Your task to perform on an android device: Set the phone to "Do not disturb". Image 0: 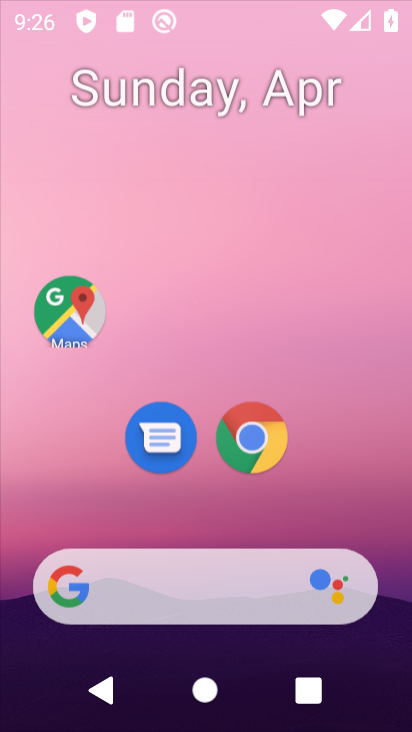
Step 0: click (237, 11)
Your task to perform on an android device: Set the phone to "Do not disturb". Image 1: 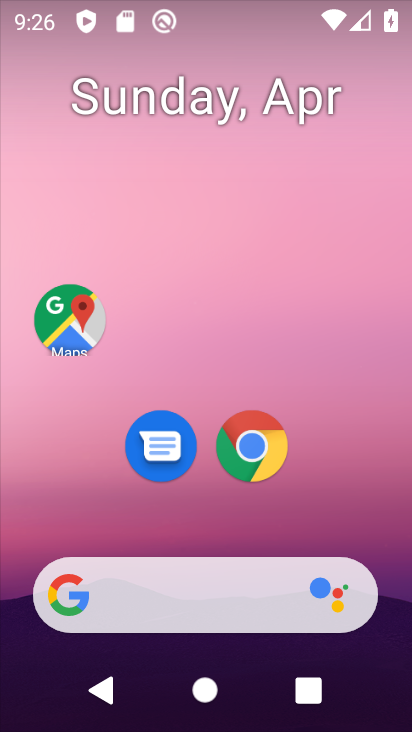
Step 1: drag from (206, 487) to (248, 267)
Your task to perform on an android device: Set the phone to "Do not disturb". Image 2: 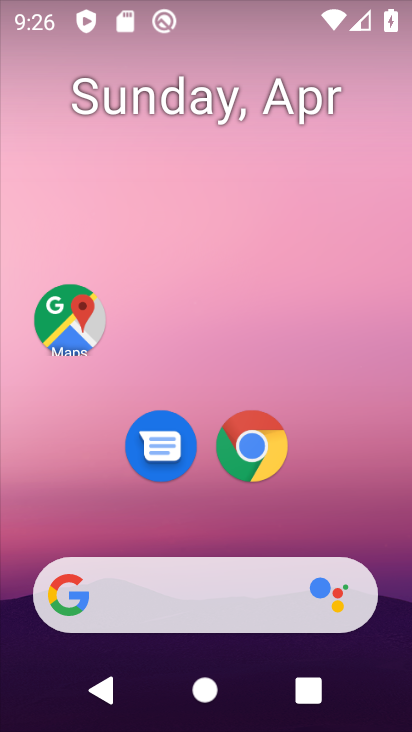
Step 2: drag from (219, 519) to (279, 210)
Your task to perform on an android device: Set the phone to "Do not disturb". Image 3: 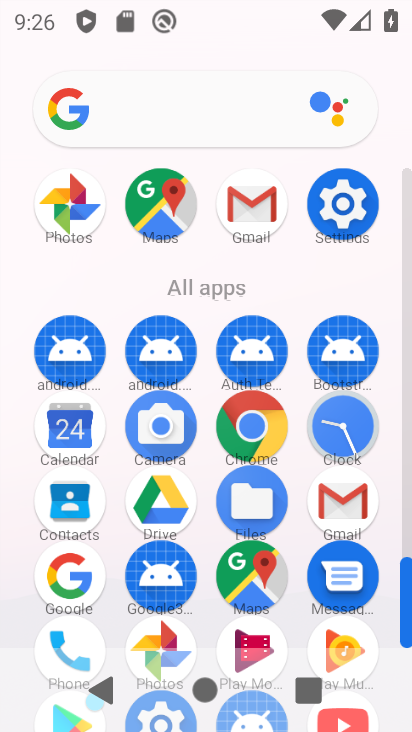
Step 3: click (346, 215)
Your task to perform on an android device: Set the phone to "Do not disturb". Image 4: 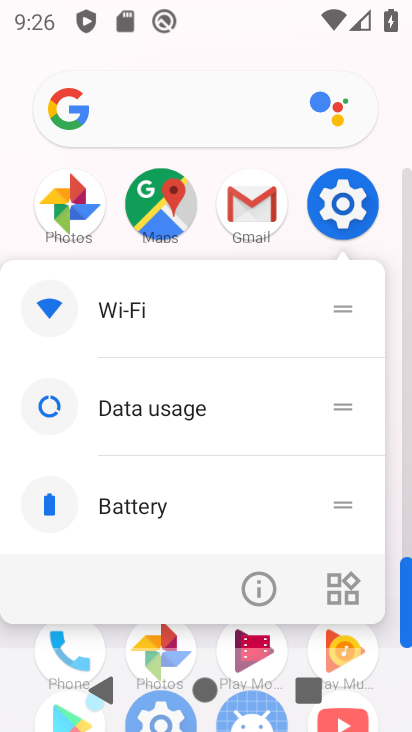
Step 4: click (265, 590)
Your task to perform on an android device: Set the phone to "Do not disturb". Image 5: 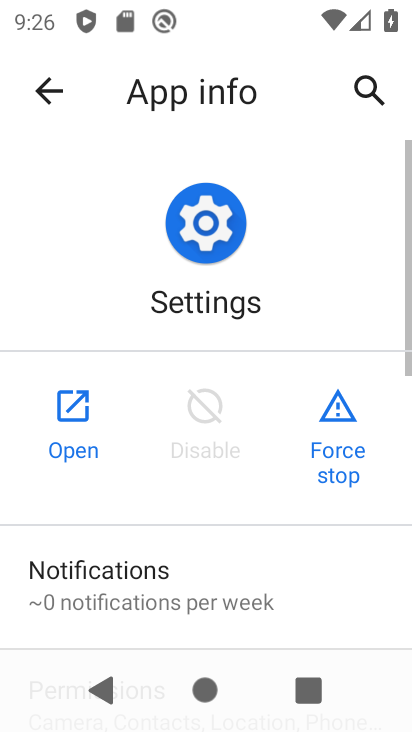
Step 5: click (81, 435)
Your task to perform on an android device: Set the phone to "Do not disturb". Image 6: 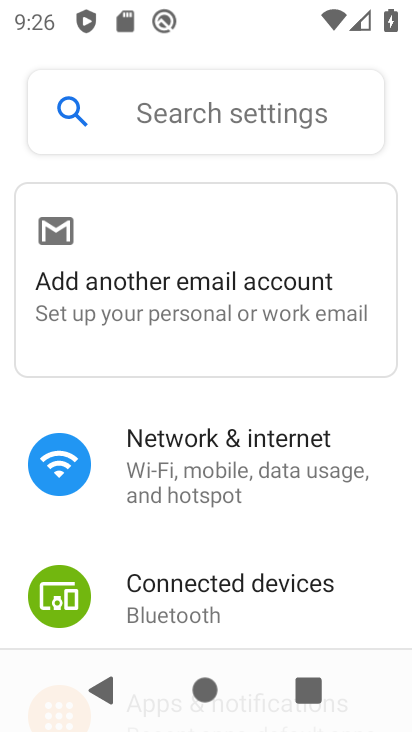
Step 6: drag from (235, 588) to (318, 255)
Your task to perform on an android device: Set the phone to "Do not disturb". Image 7: 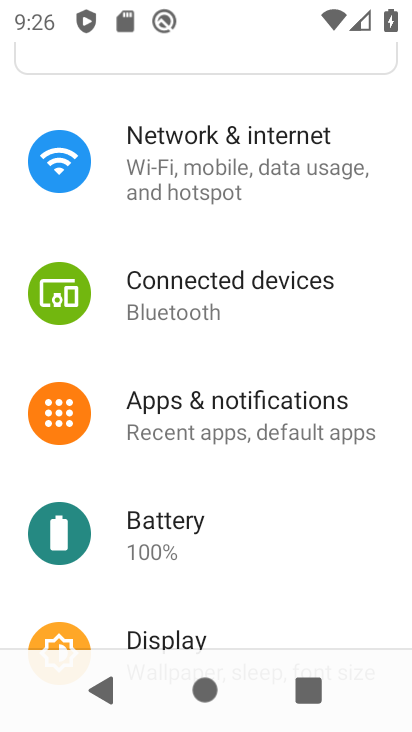
Step 7: click (194, 402)
Your task to perform on an android device: Set the phone to "Do not disturb". Image 8: 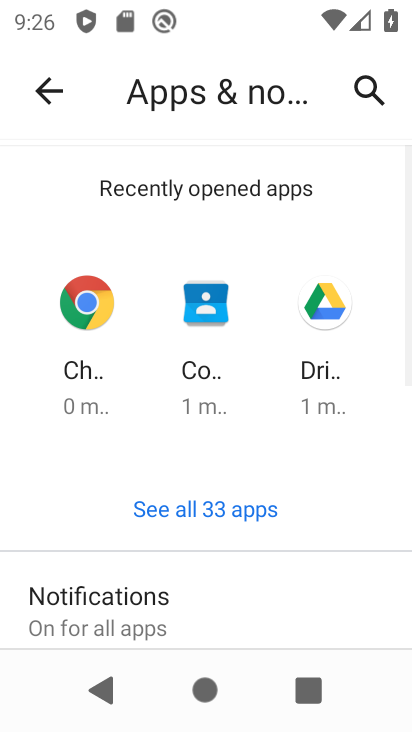
Step 8: drag from (248, 630) to (302, 293)
Your task to perform on an android device: Set the phone to "Do not disturb". Image 9: 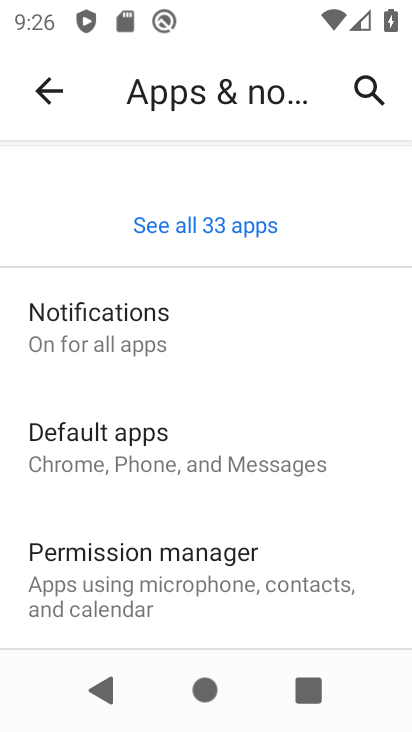
Step 9: click (174, 330)
Your task to perform on an android device: Set the phone to "Do not disturb". Image 10: 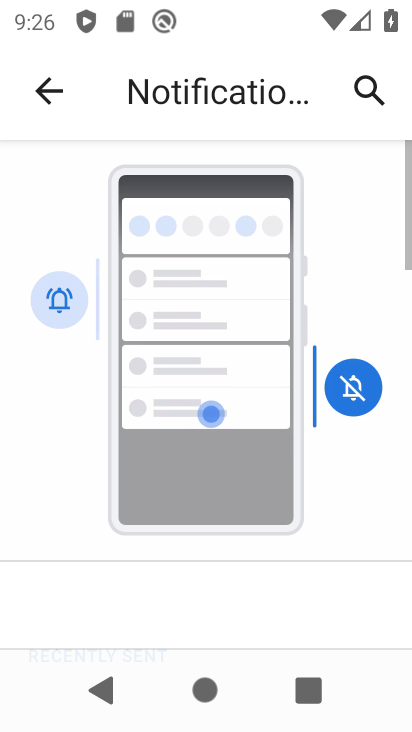
Step 10: drag from (207, 603) to (373, 73)
Your task to perform on an android device: Set the phone to "Do not disturb". Image 11: 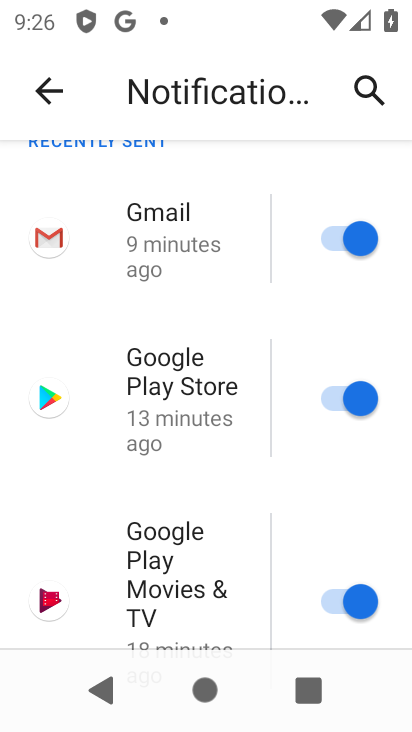
Step 11: drag from (201, 556) to (269, 100)
Your task to perform on an android device: Set the phone to "Do not disturb". Image 12: 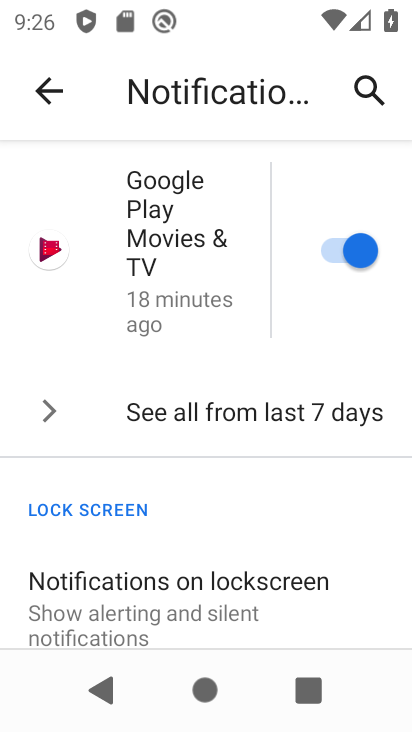
Step 12: drag from (190, 519) to (266, 61)
Your task to perform on an android device: Set the phone to "Do not disturb". Image 13: 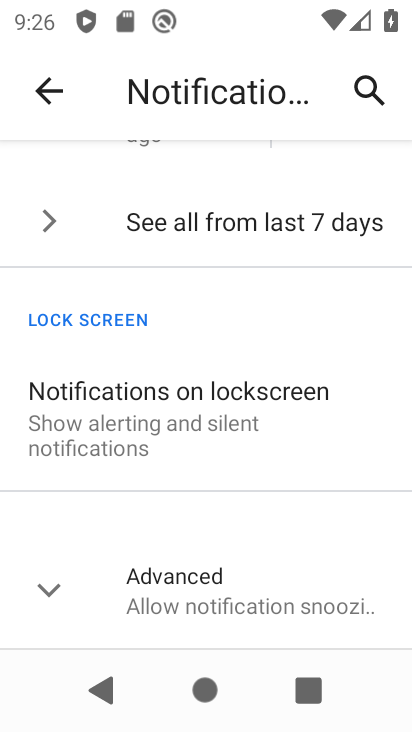
Step 13: click (185, 591)
Your task to perform on an android device: Set the phone to "Do not disturb". Image 14: 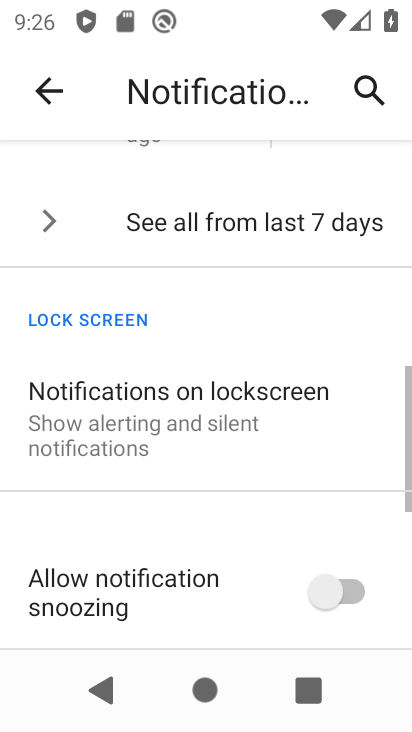
Step 14: drag from (237, 501) to (347, 159)
Your task to perform on an android device: Set the phone to "Do not disturb". Image 15: 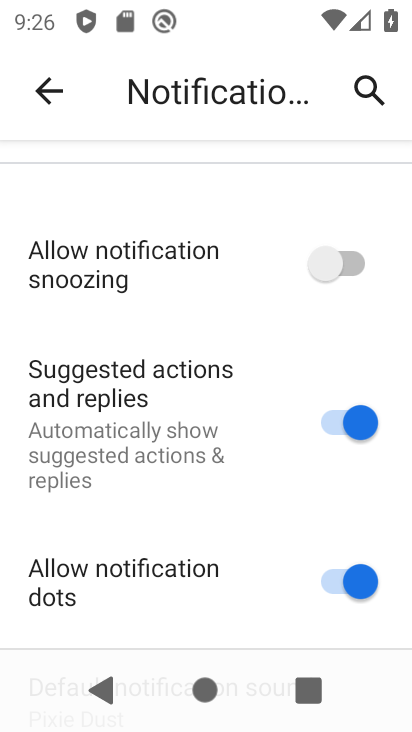
Step 15: drag from (222, 569) to (221, 121)
Your task to perform on an android device: Set the phone to "Do not disturb". Image 16: 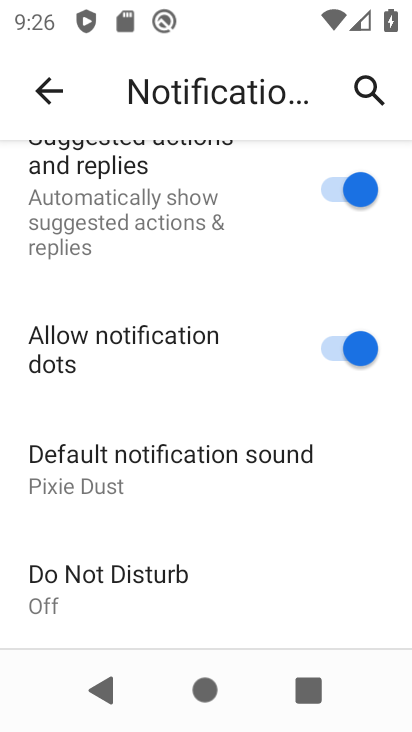
Step 16: drag from (187, 502) to (218, 207)
Your task to perform on an android device: Set the phone to "Do not disturb". Image 17: 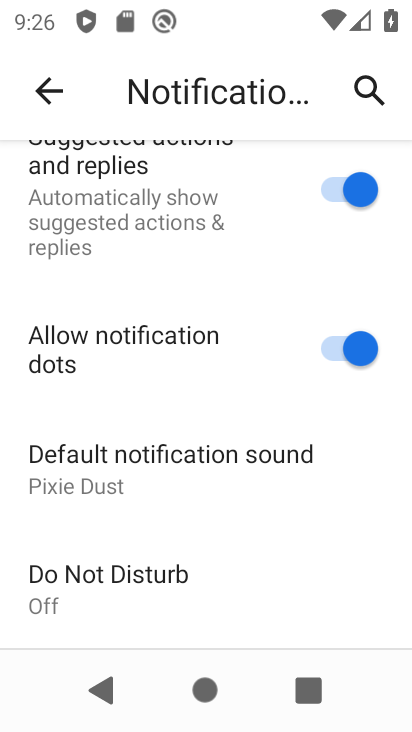
Step 17: click (141, 593)
Your task to perform on an android device: Set the phone to "Do not disturb". Image 18: 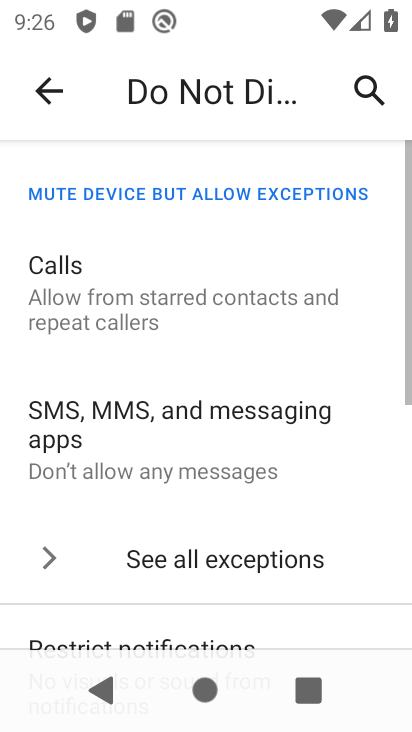
Step 18: drag from (203, 555) to (325, 100)
Your task to perform on an android device: Set the phone to "Do not disturb". Image 19: 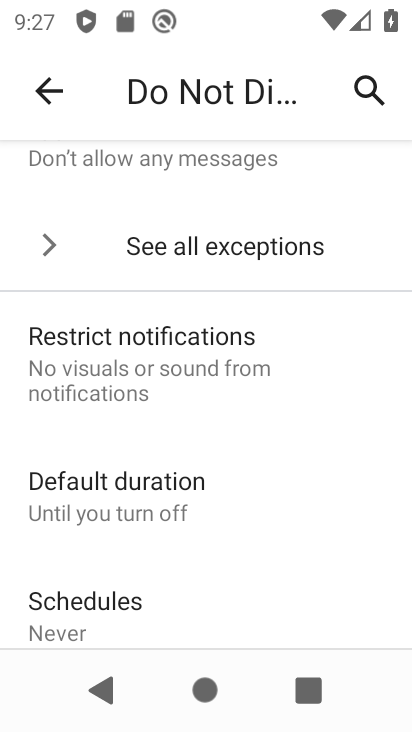
Step 19: drag from (217, 520) to (251, 139)
Your task to perform on an android device: Set the phone to "Do not disturb". Image 20: 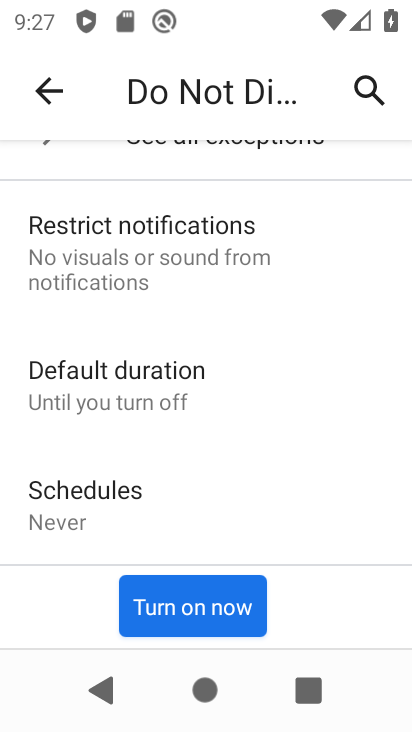
Step 20: click (201, 598)
Your task to perform on an android device: Set the phone to "Do not disturb". Image 21: 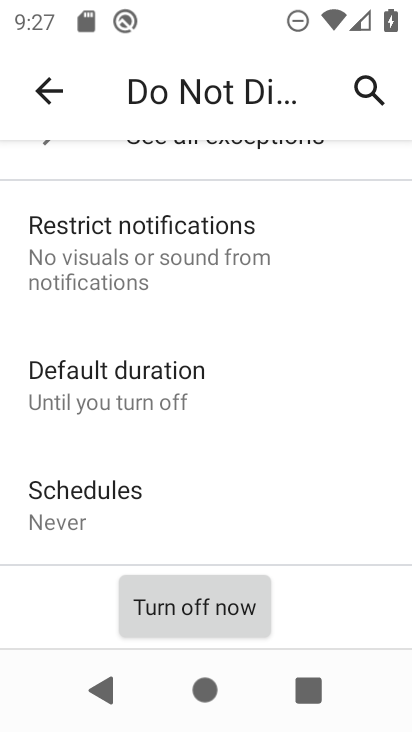
Step 21: task complete